Your task to perform on an android device: Open network settings Image 0: 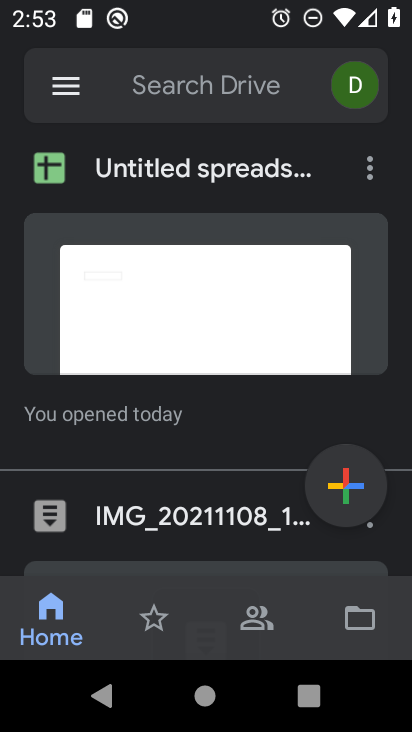
Step 0: drag from (238, 26) to (210, 447)
Your task to perform on an android device: Open network settings Image 1: 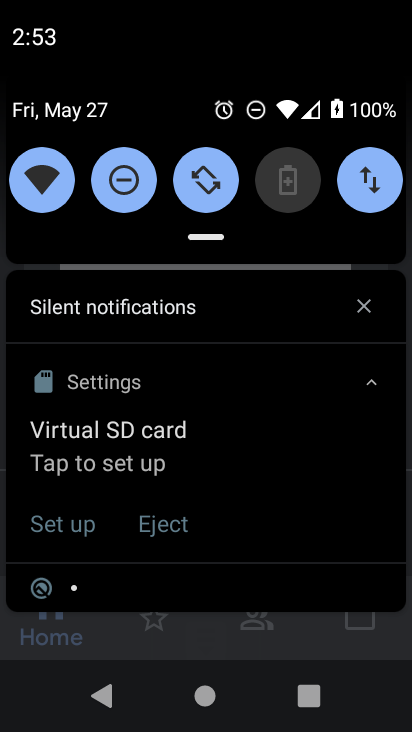
Step 1: click (363, 179)
Your task to perform on an android device: Open network settings Image 2: 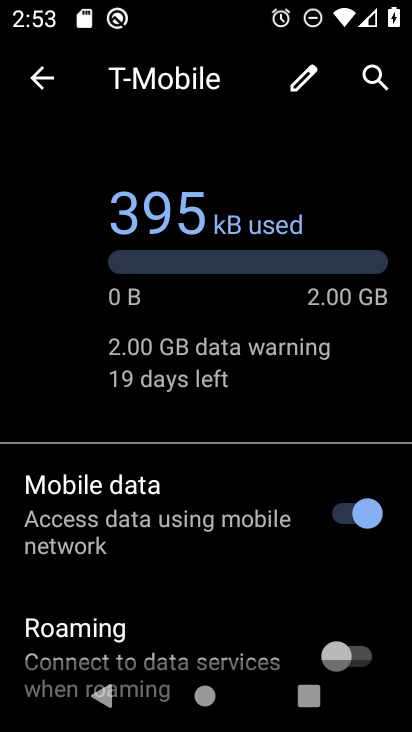
Step 2: task complete